Your task to perform on an android device: Go to wifi settings Image 0: 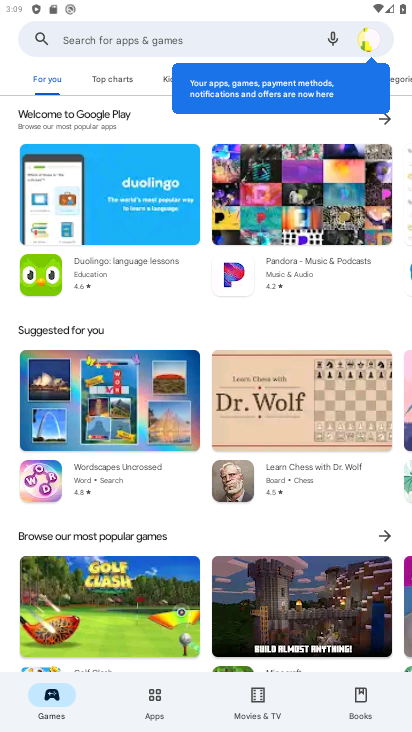
Step 0: press home button
Your task to perform on an android device: Go to wifi settings Image 1: 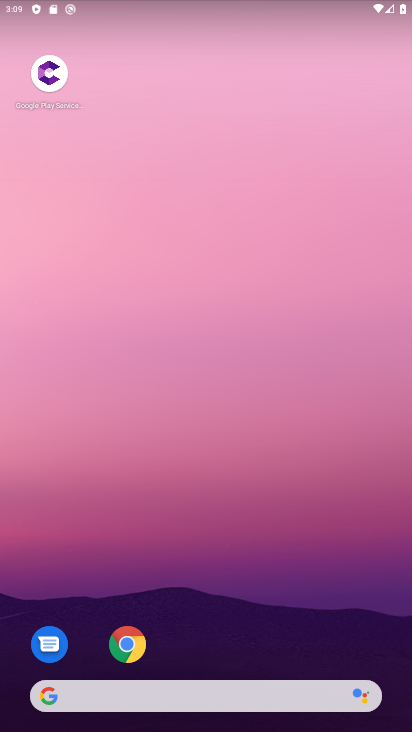
Step 1: drag from (237, 606) to (239, 120)
Your task to perform on an android device: Go to wifi settings Image 2: 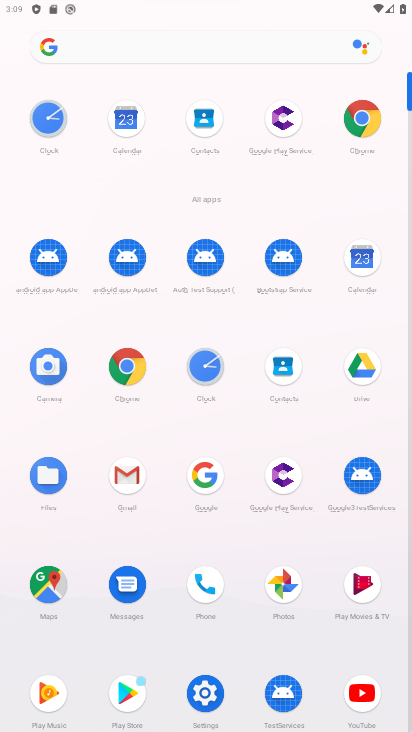
Step 2: click (208, 695)
Your task to perform on an android device: Go to wifi settings Image 3: 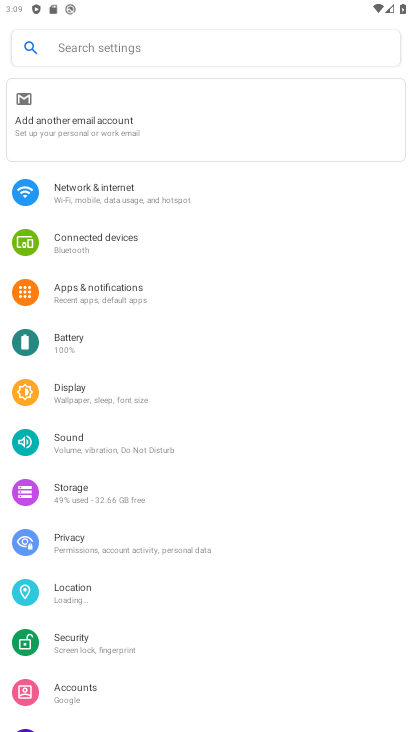
Step 3: click (95, 193)
Your task to perform on an android device: Go to wifi settings Image 4: 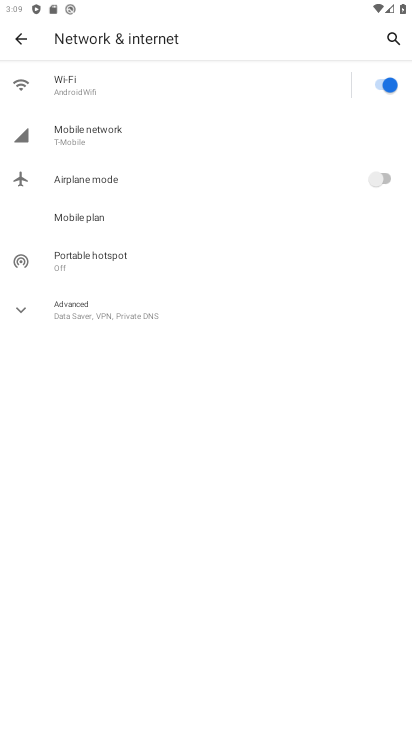
Step 4: click (162, 83)
Your task to perform on an android device: Go to wifi settings Image 5: 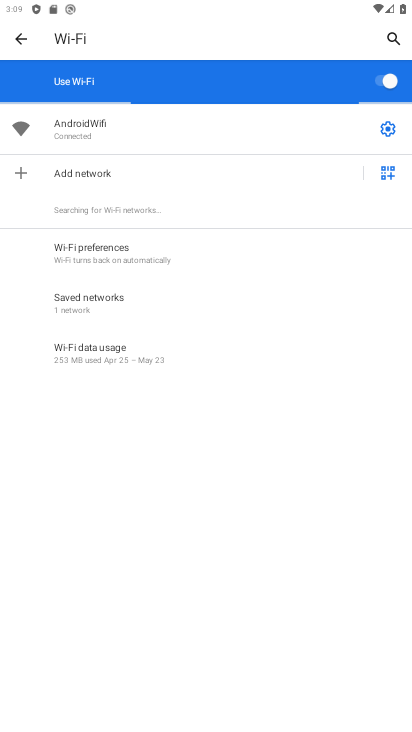
Step 5: click (389, 118)
Your task to perform on an android device: Go to wifi settings Image 6: 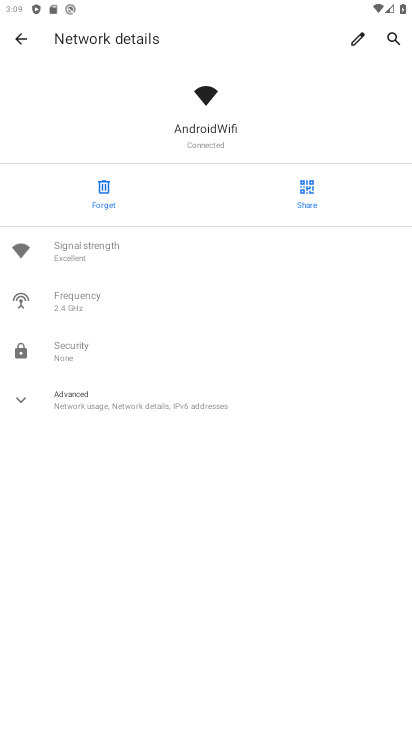
Step 6: task complete